Your task to perform on an android device: Go to Google maps Image 0: 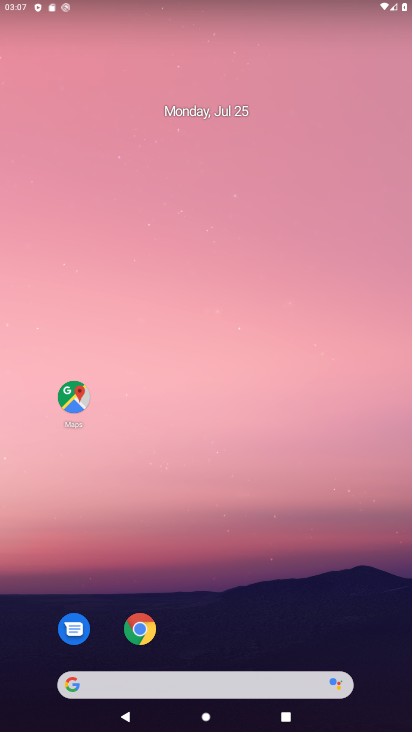
Step 0: click (76, 403)
Your task to perform on an android device: Go to Google maps Image 1: 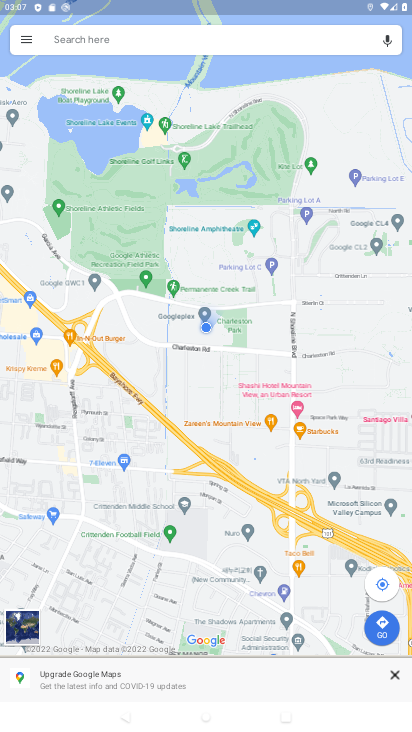
Step 1: task complete